Your task to perform on an android device: create a new album in the google photos Image 0: 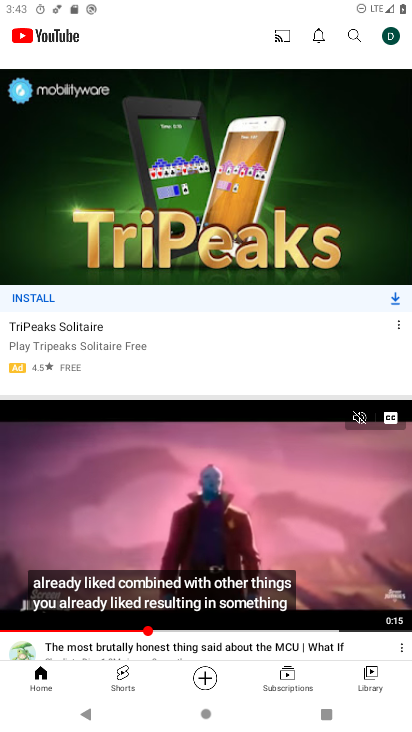
Step 0: press home button
Your task to perform on an android device: create a new album in the google photos Image 1: 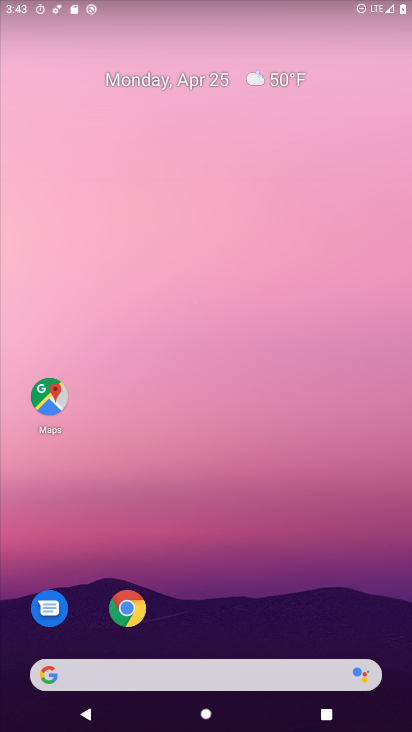
Step 1: drag from (228, 603) to (234, 217)
Your task to perform on an android device: create a new album in the google photos Image 2: 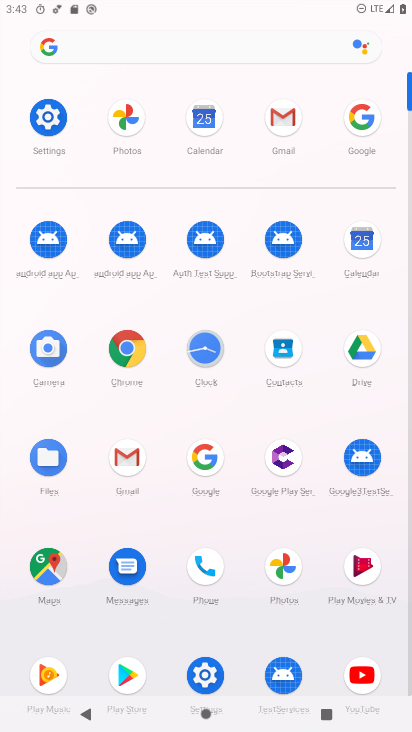
Step 2: click (121, 125)
Your task to perform on an android device: create a new album in the google photos Image 3: 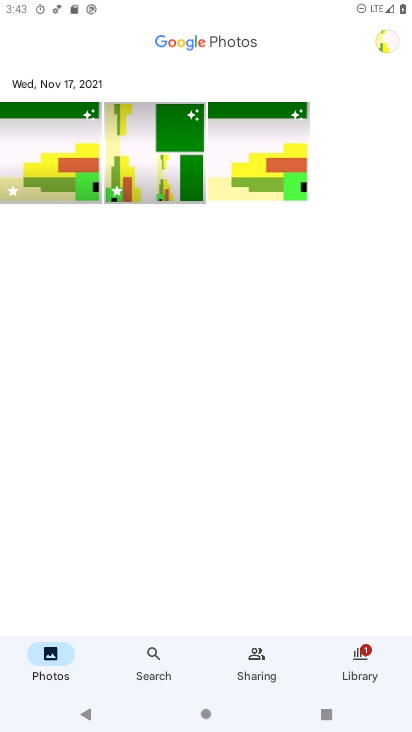
Step 3: click (111, 44)
Your task to perform on an android device: create a new album in the google photos Image 4: 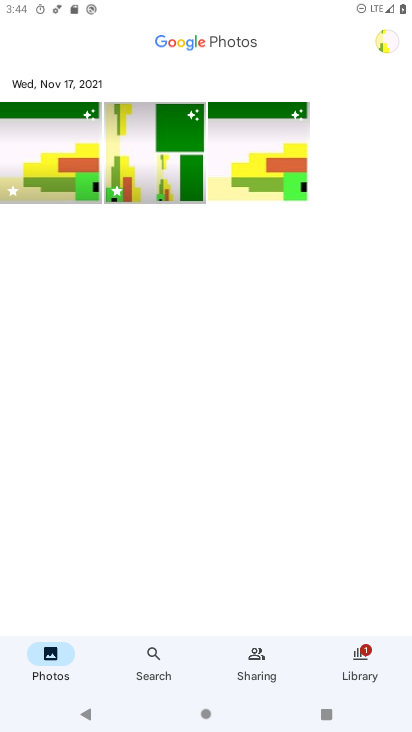
Step 4: click (15, 44)
Your task to perform on an android device: create a new album in the google photos Image 5: 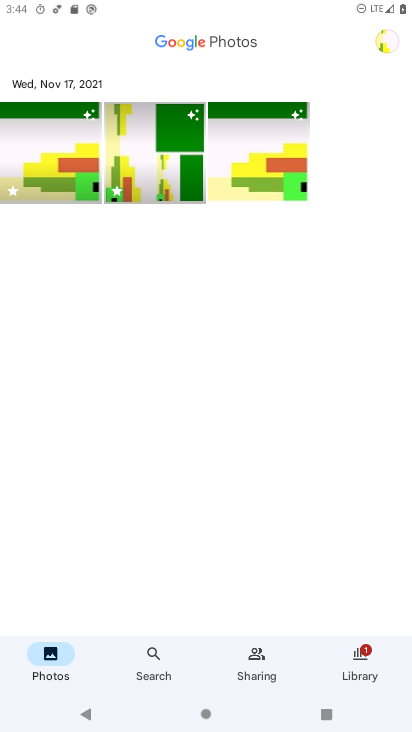
Step 5: click (186, 369)
Your task to perform on an android device: create a new album in the google photos Image 6: 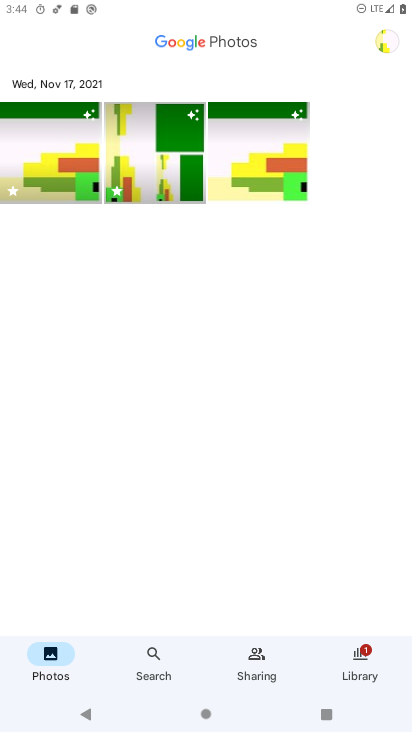
Step 6: click (350, 656)
Your task to perform on an android device: create a new album in the google photos Image 7: 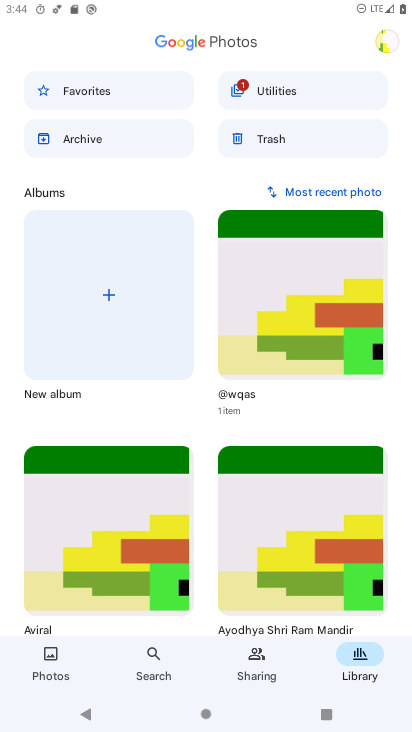
Step 7: click (81, 297)
Your task to perform on an android device: create a new album in the google photos Image 8: 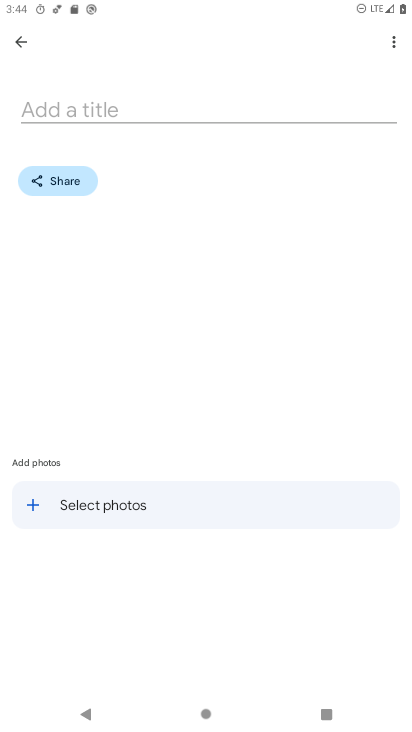
Step 8: click (132, 103)
Your task to perform on an android device: create a new album in the google photos Image 9: 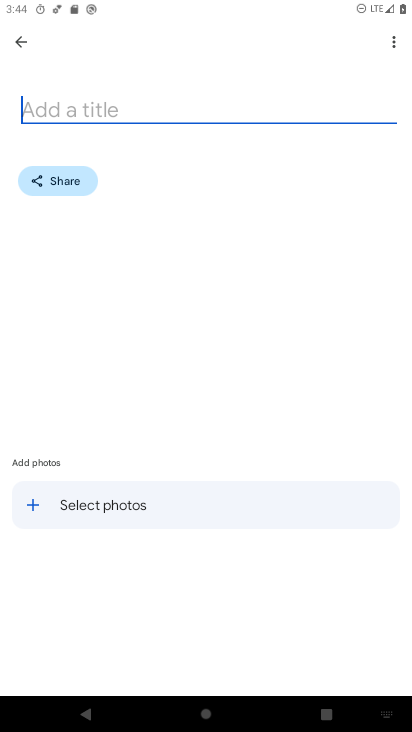
Step 9: type "hubbm"
Your task to perform on an android device: create a new album in the google photos Image 10: 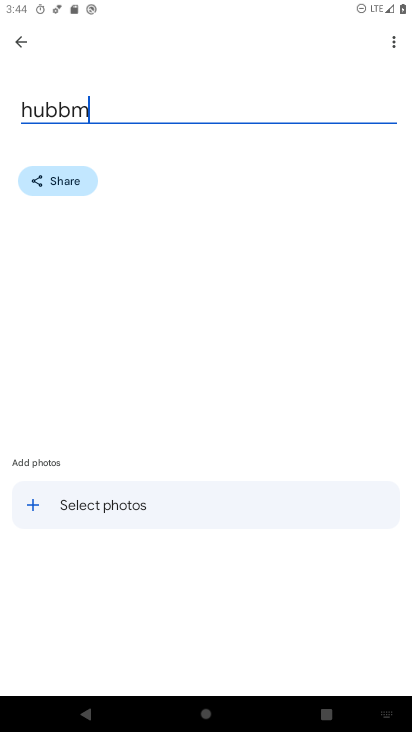
Step 10: click (37, 506)
Your task to perform on an android device: create a new album in the google photos Image 11: 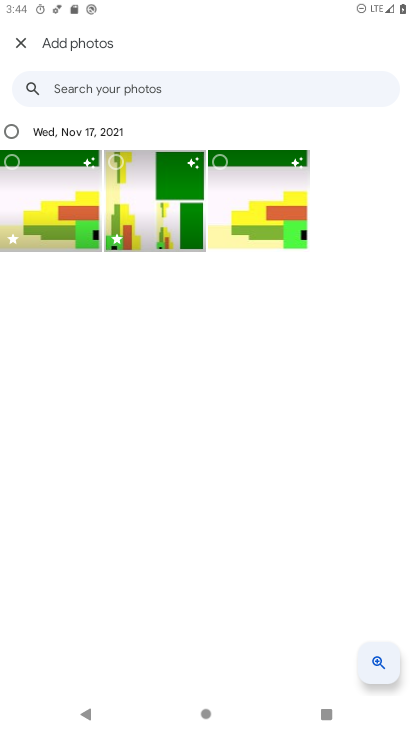
Step 11: click (147, 205)
Your task to perform on an android device: create a new album in the google photos Image 12: 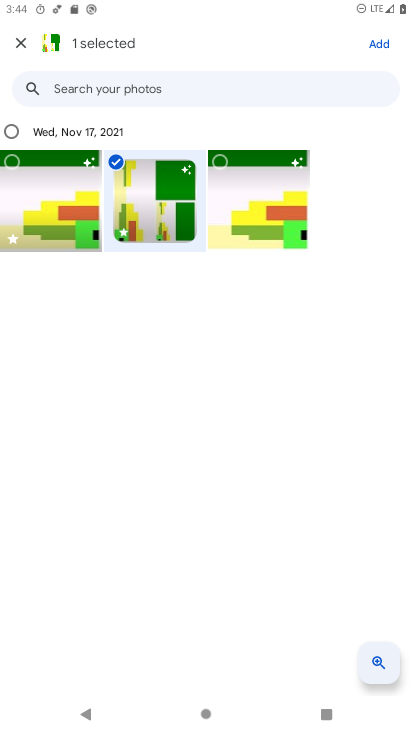
Step 12: click (383, 44)
Your task to perform on an android device: create a new album in the google photos Image 13: 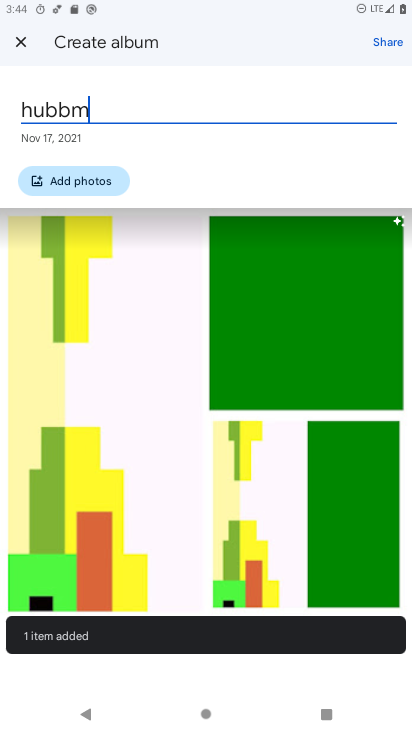
Step 13: task complete